Your task to perform on an android device: turn off improve location accuracy Image 0: 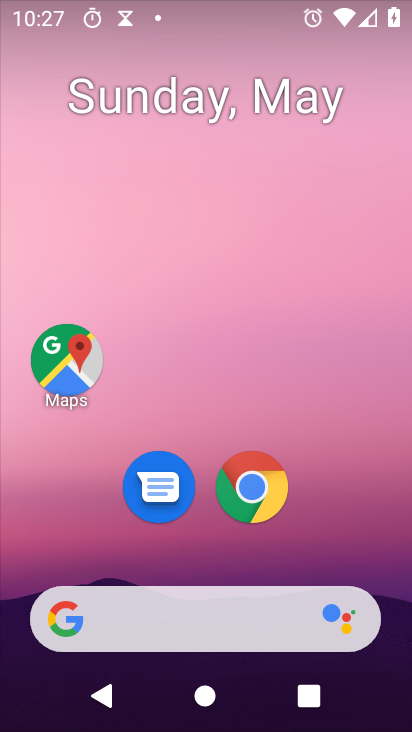
Step 0: drag from (341, 485) to (36, 13)
Your task to perform on an android device: turn off improve location accuracy Image 1: 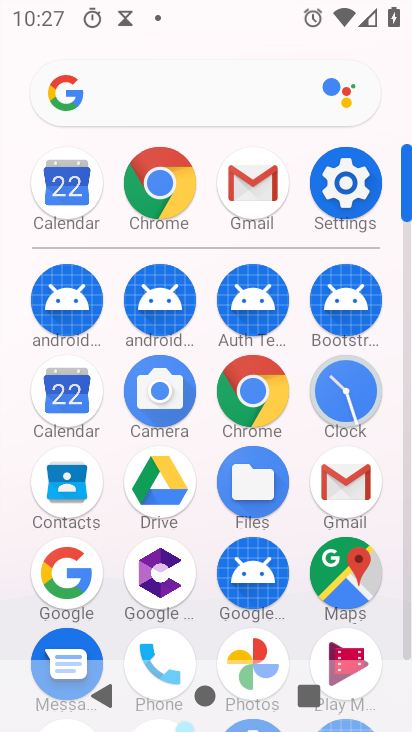
Step 1: click (338, 119)
Your task to perform on an android device: turn off improve location accuracy Image 2: 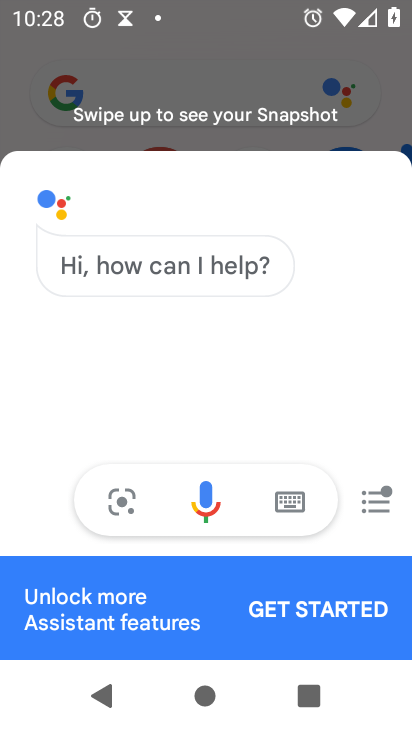
Step 2: press back button
Your task to perform on an android device: turn off improve location accuracy Image 3: 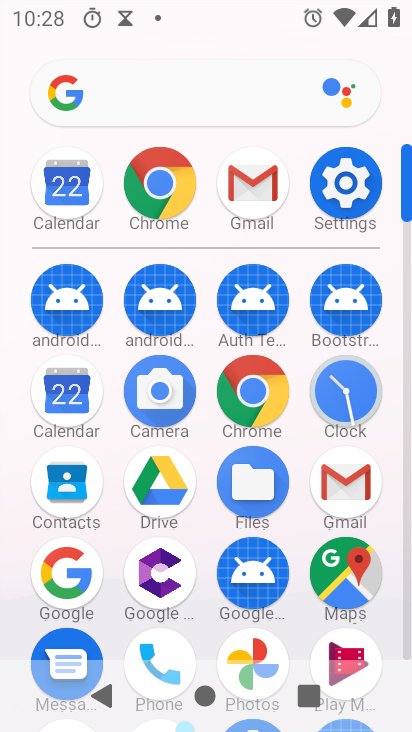
Step 3: click (351, 189)
Your task to perform on an android device: turn off improve location accuracy Image 4: 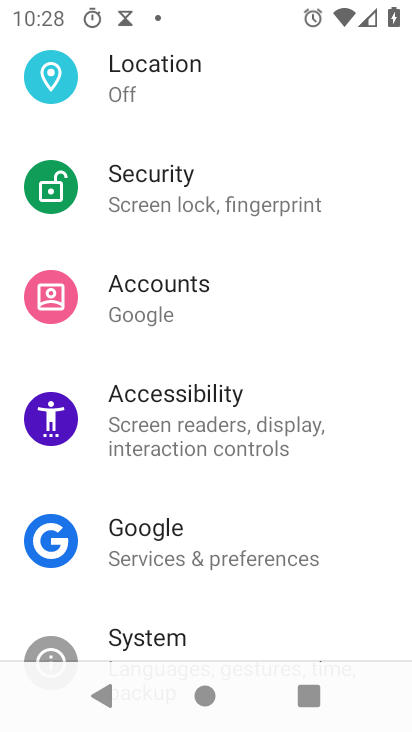
Step 4: drag from (191, 249) to (211, 642)
Your task to perform on an android device: turn off improve location accuracy Image 5: 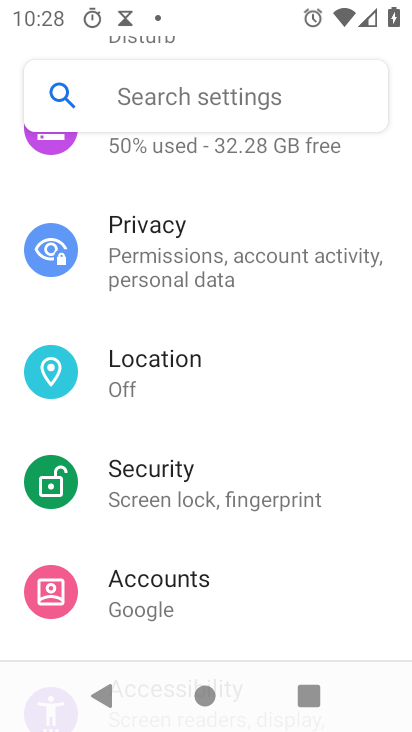
Step 5: click (193, 368)
Your task to perform on an android device: turn off improve location accuracy Image 6: 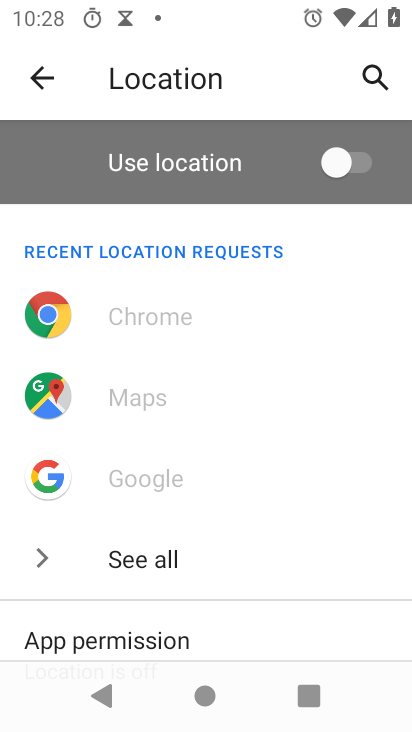
Step 6: drag from (234, 575) to (243, 162)
Your task to perform on an android device: turn off improve location accuracy Image 7: 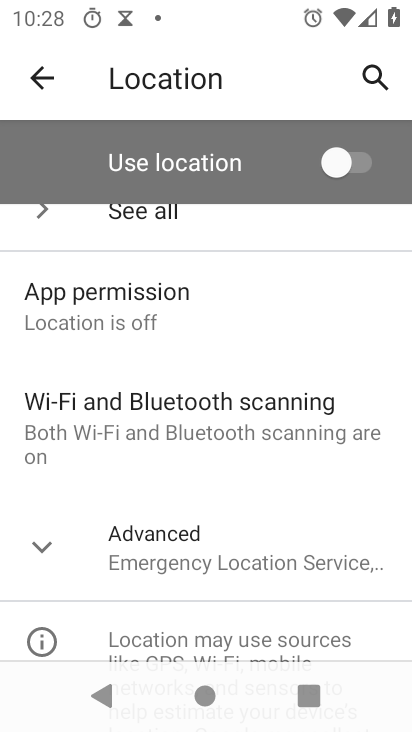
Step 7: drag from (261, 581) to (245, 63)
Your task to perform on an android device: turn off improve location accuracy Image 8: 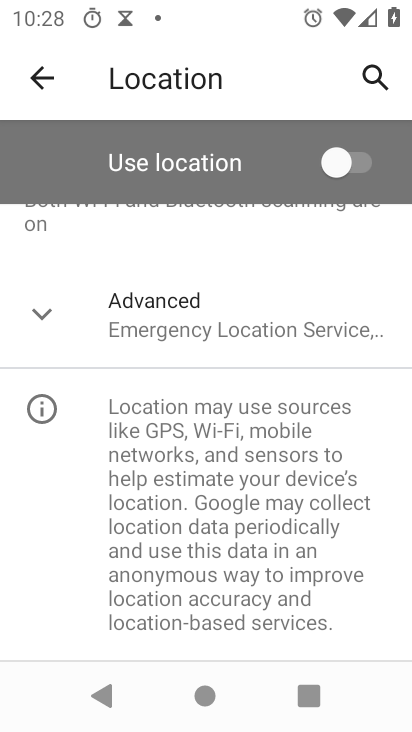
Step 8: drag from (214, 534) to (218, 153)
Your task to perform on an android device: turn off improve location accuracy Image 9: 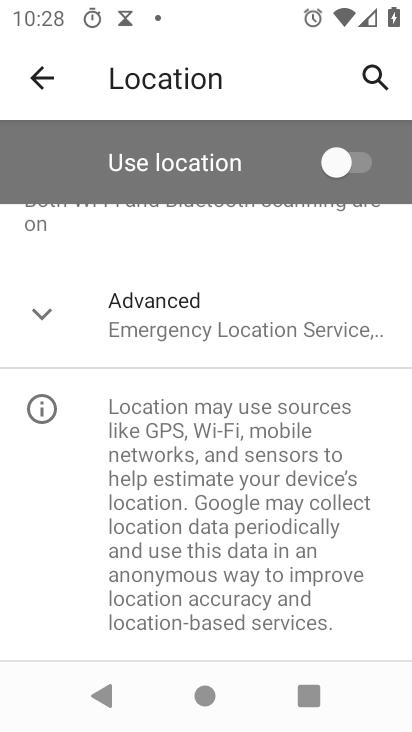
Step 9: click (126, 328)
Your task to perform on an android device: turn off improve location accuracy Image 10: 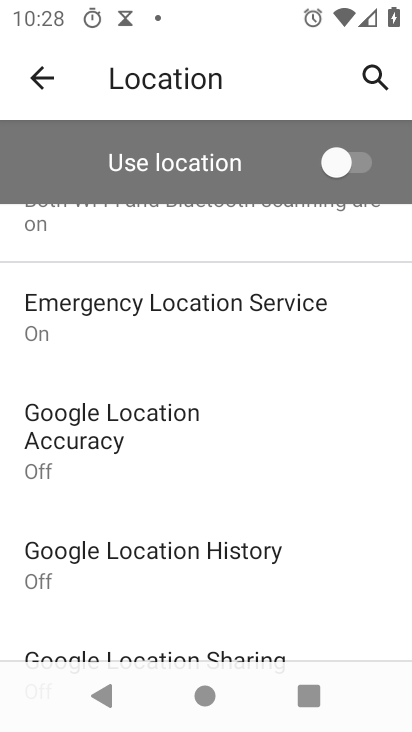
Step 10: click (128, 447)
Your task to perform on an android device: turn off improve location accuracy Image 11: 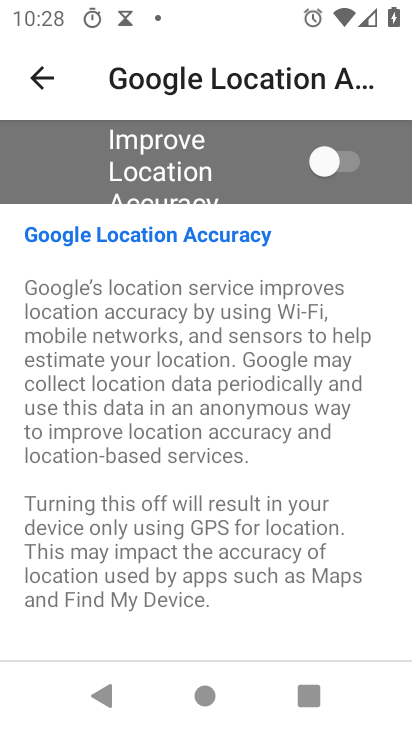
Step 11: task complete